Your task to perform on an android device: What's the weather going to be tomorrow? Image 0: 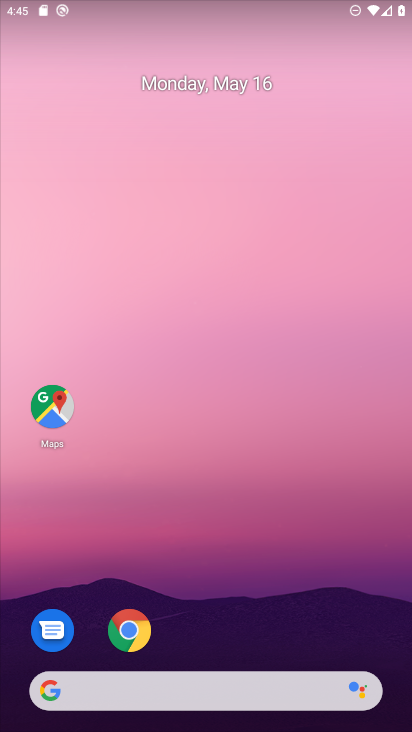
Step 0: click (125, 655)
Your task to perform on an android device: What's the weather going to be tomorrow? Image 1: 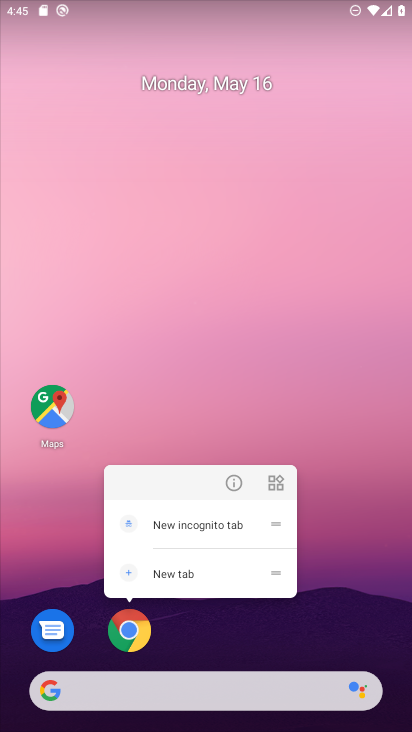
Step 1: click (138, 622)
Your task to perform on an android device: What's the weather going to be tomorrow? Image 2: 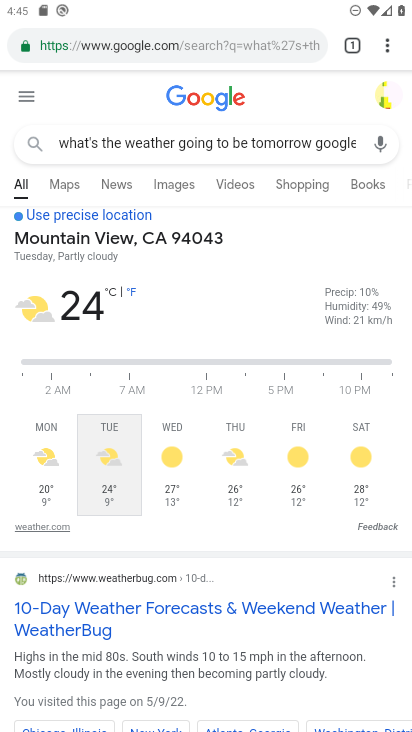
Step 2: task complete